Your task to perform on an android device: change notifications settings Image 0: 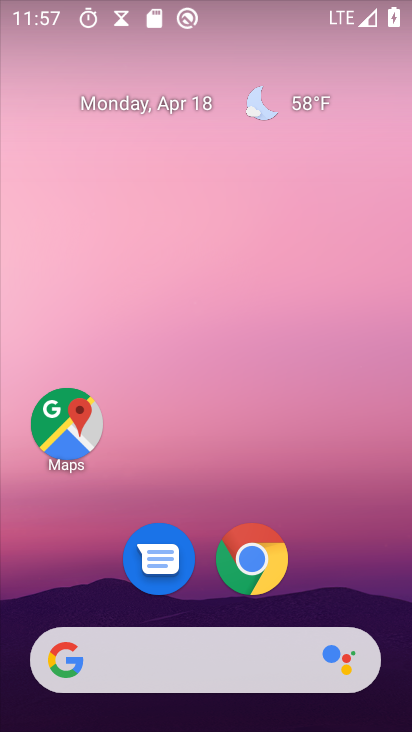
Step 0: drag from (303, 600) to (253, 82)
Your task to perform on an android device: change notifications settings Image 1: 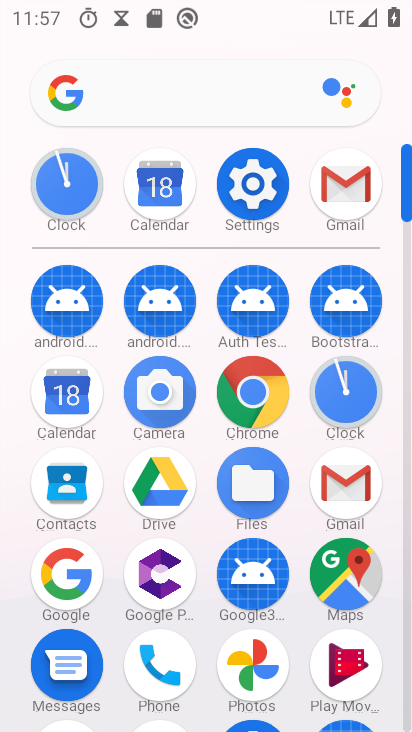
Step 1: click (265, 243)
Your task to perform on an android device: change notifications settings Image 2: 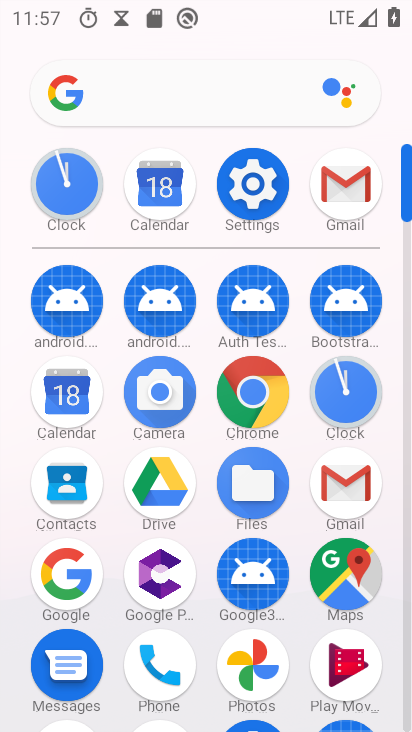
Step 2: click (268, 192)
Your task to perform on an android device: change notifications settings Image 3: 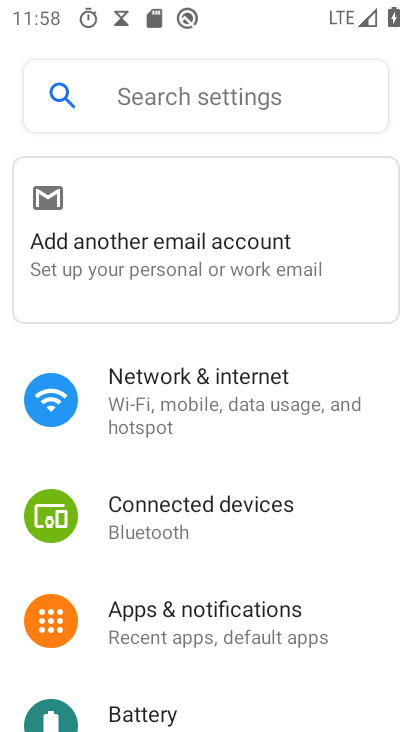
Step 3: click (168, 624)
Your task to perform on an android device: change notifications settings Image 4: 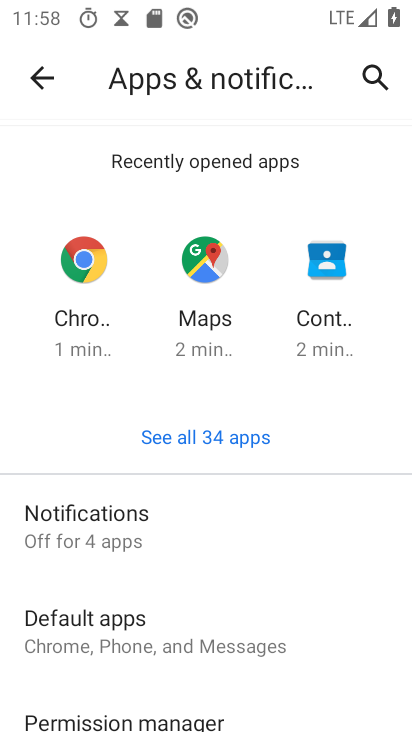
Step 4: drag from (144, 650) to (150, 364)
Your task to perform on an android device: change notifications settings Image 5: 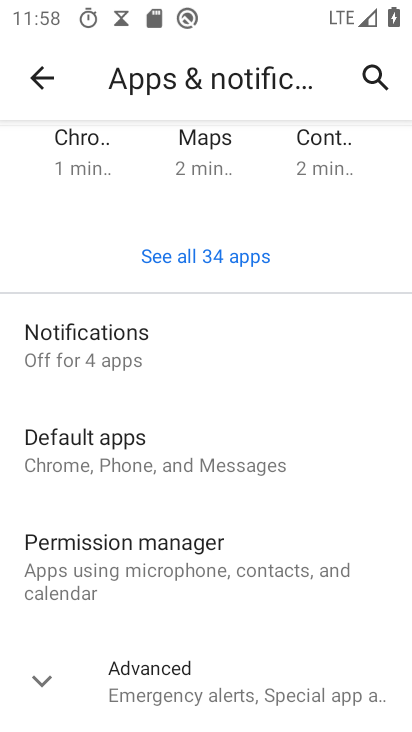
Step 5: click (100, 355)
Your task to perform on an android device: change notifications settings Image 6: 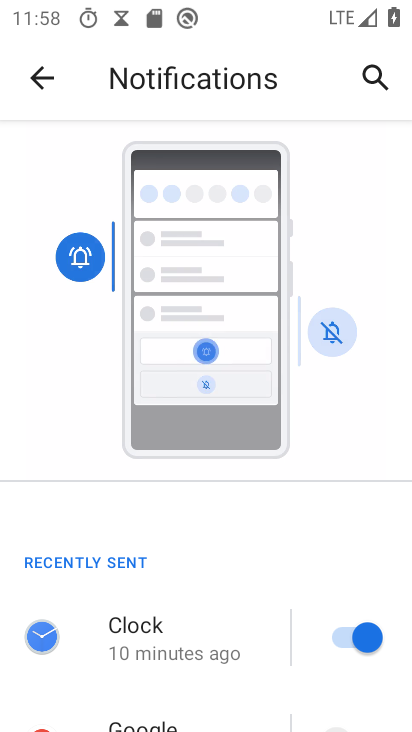
Step 6: drag from (199, 625) to (212, 263)
Your task to perform on an android device: change notifications settings Image 7: 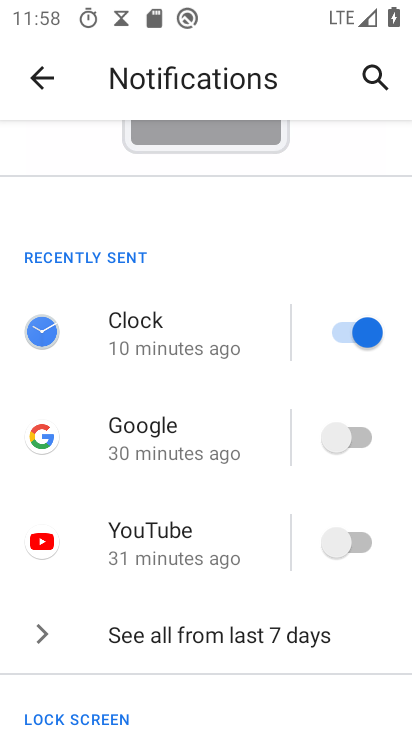
Step 7: drag from (186, 675) to (169, 196)
Your task to perform on an android device: change notifications settings Image 8: 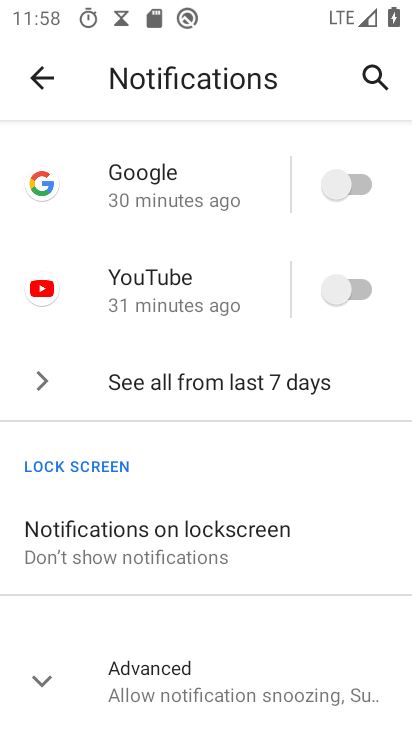
Step 8: click (158, 542)
Your task to perform on an android device: change notifications settings Image 9: 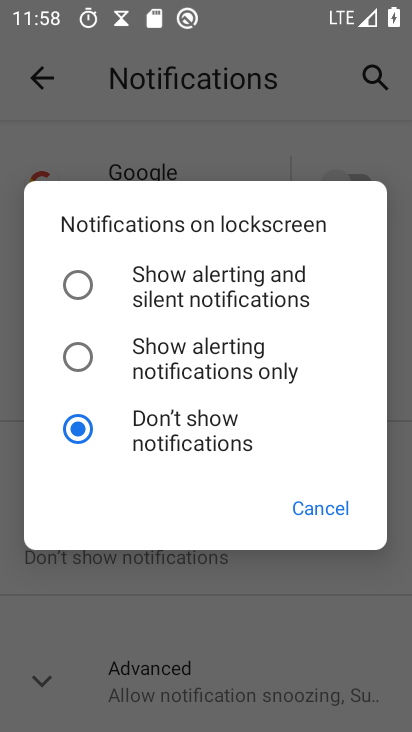
Step 9: click (192, 353)
Your task to perform on an android device: change notifications settings Image 10: 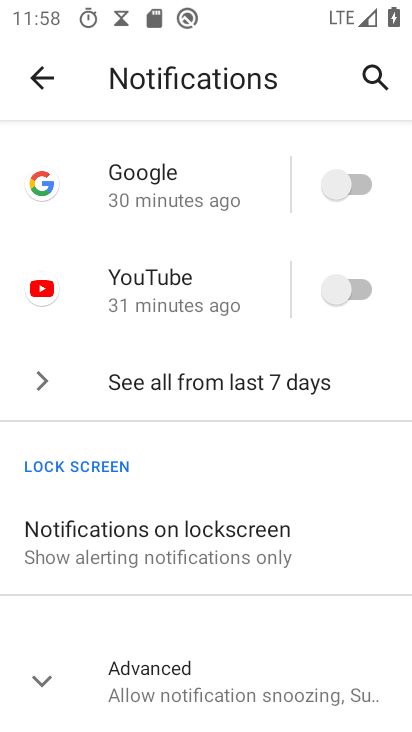
Step 10: task complete